Your task to perform on an android device: Is it going to rain tomorrow? Image 0: 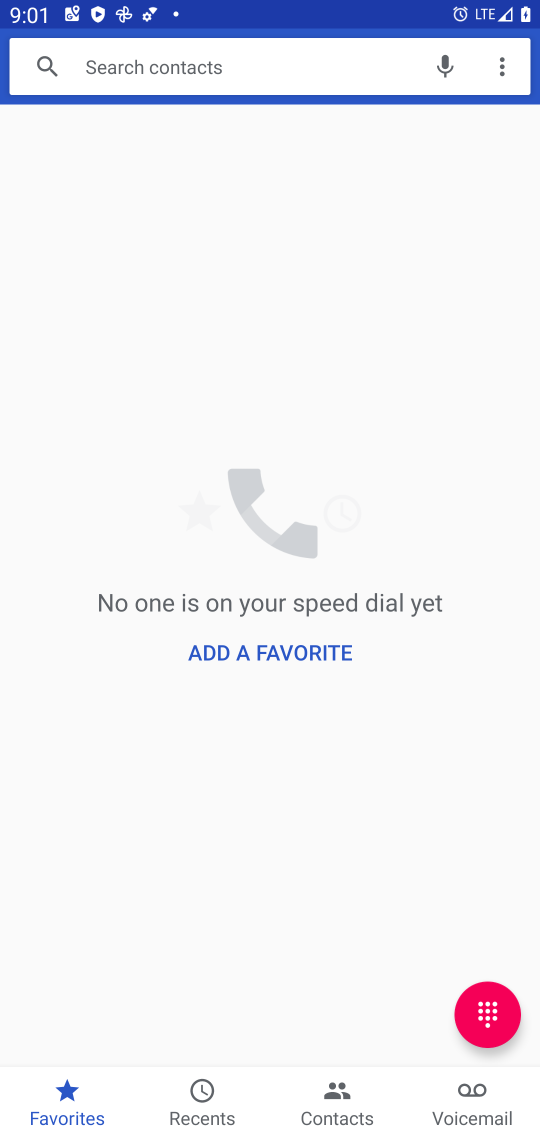
Step 0: press home button
Your task to perform on an android device: Is it going to rain tomorrow? Image 1: 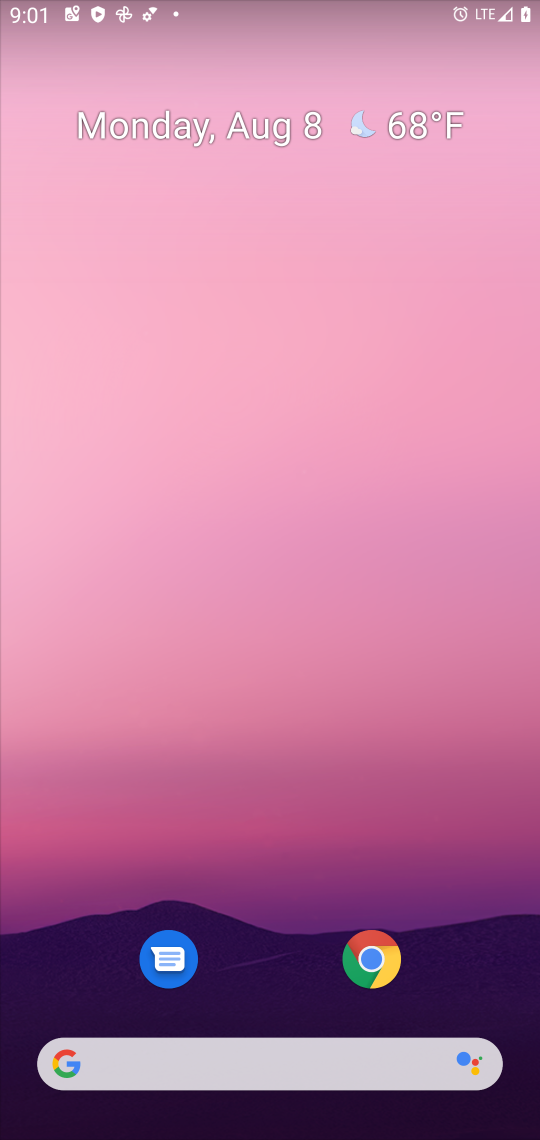
Step 1: drag from (501, 1007) to (297, 27)
Your task to perform on an android device: Is it going to rain tomorrow? Image 2: 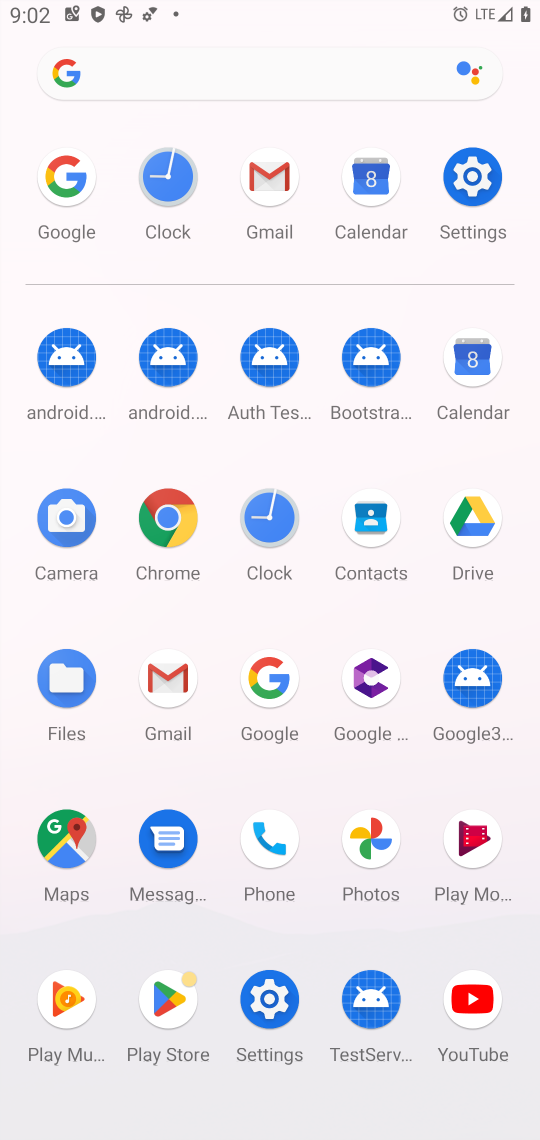
Step 2: click (275, 673)
Your task to perform on an android device: Is it going to rain tomorrow? Image 3: 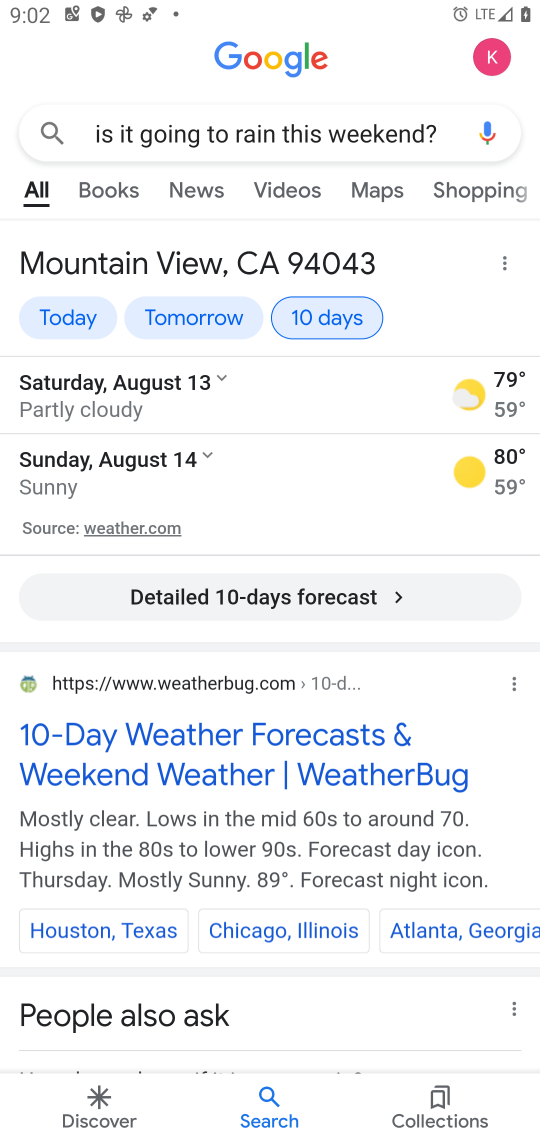
Step 3: press back button
Your task to perform on an android device: Is it going to rain tomorrow? Image 4: 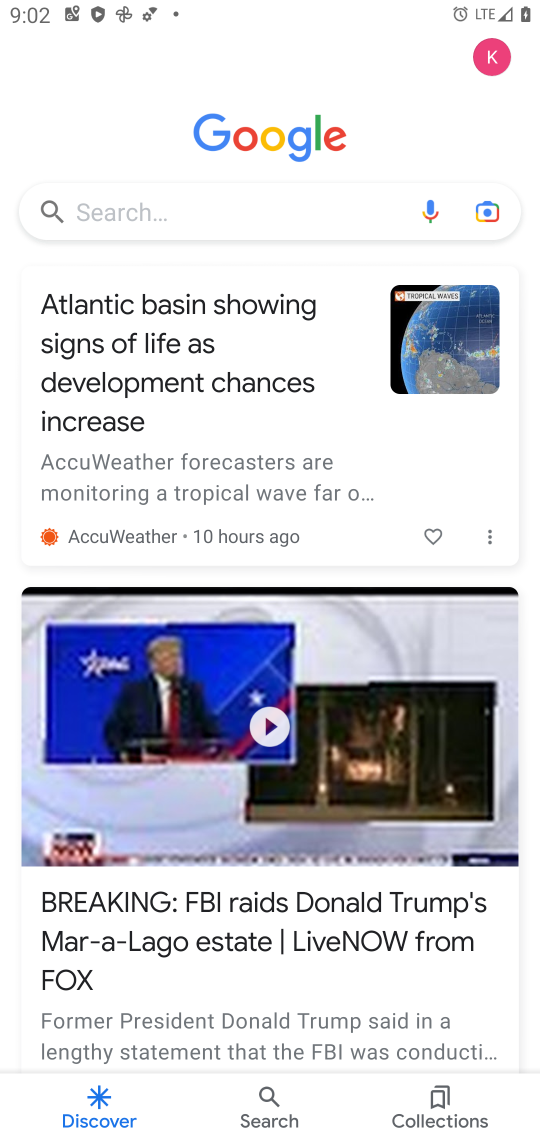
Step 4: click (122, 222)
Your task to perform on an android device: Is it going to rain tomorrow? Image 5: 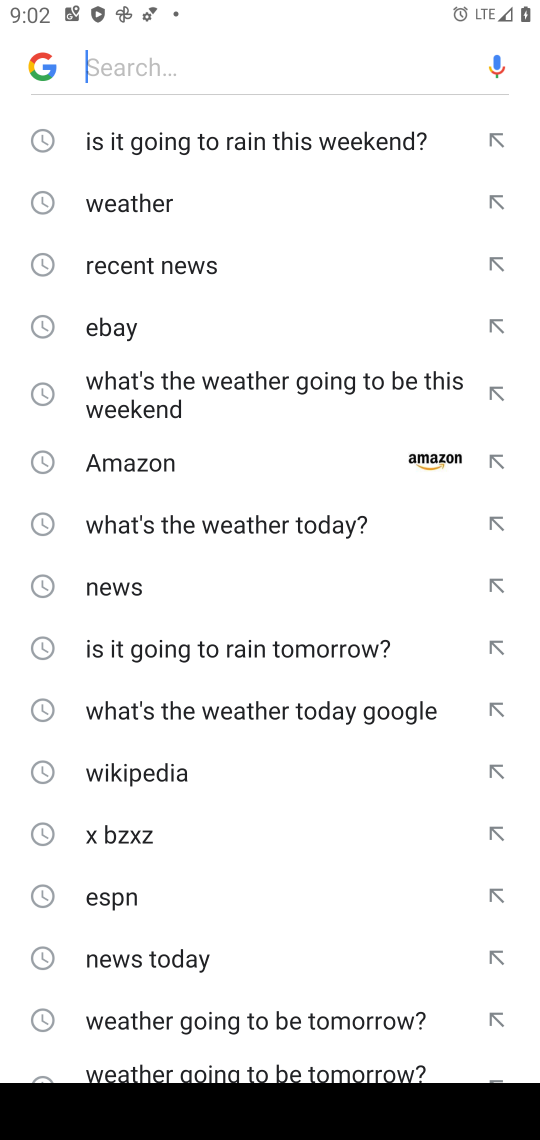
Step 5: drag from (333, 1068) to (349, 767)
Your task to perform on an android device: Is it going to rain tomorrow? Image 6: 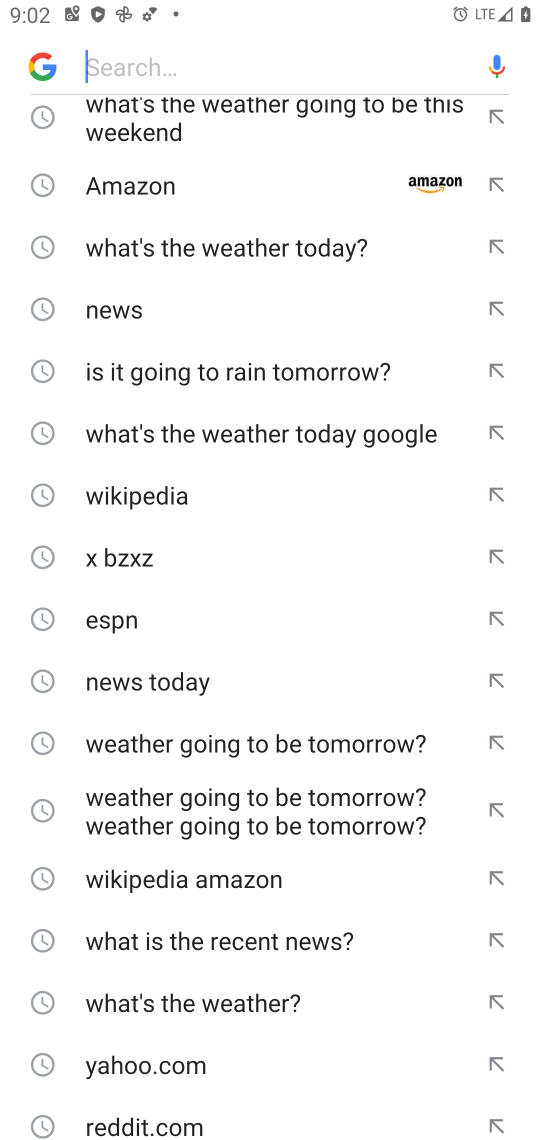
Step 6: type "Is it going to rain tomorrow?"
Your task to perform on an android device: Is it going to rain tomorrow? Image 7: 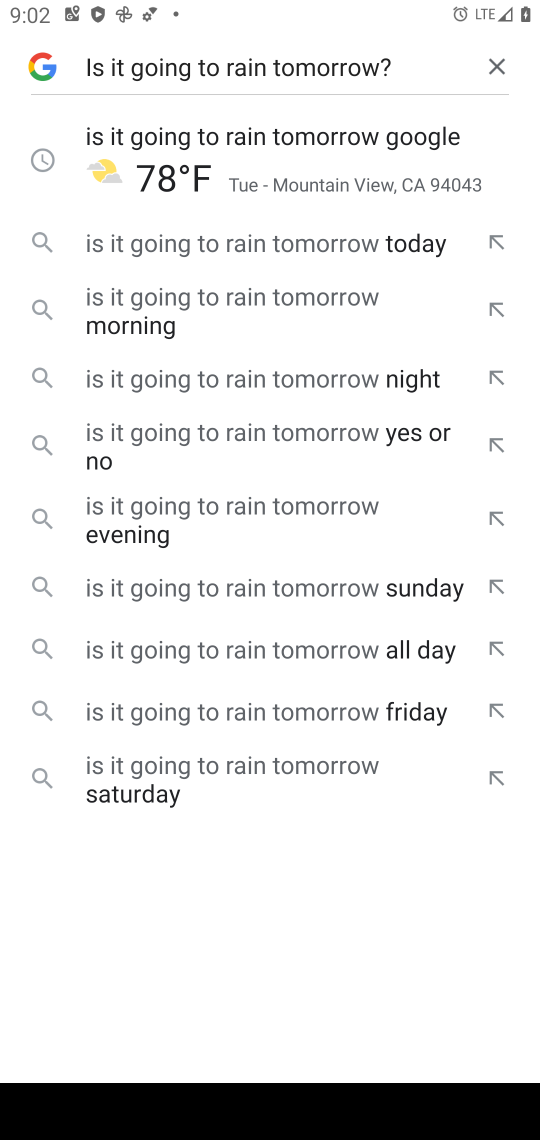
Step 7: click (262, 156)
Your task to perform on an android device: Is it going to rain tomorrow? Image 8: 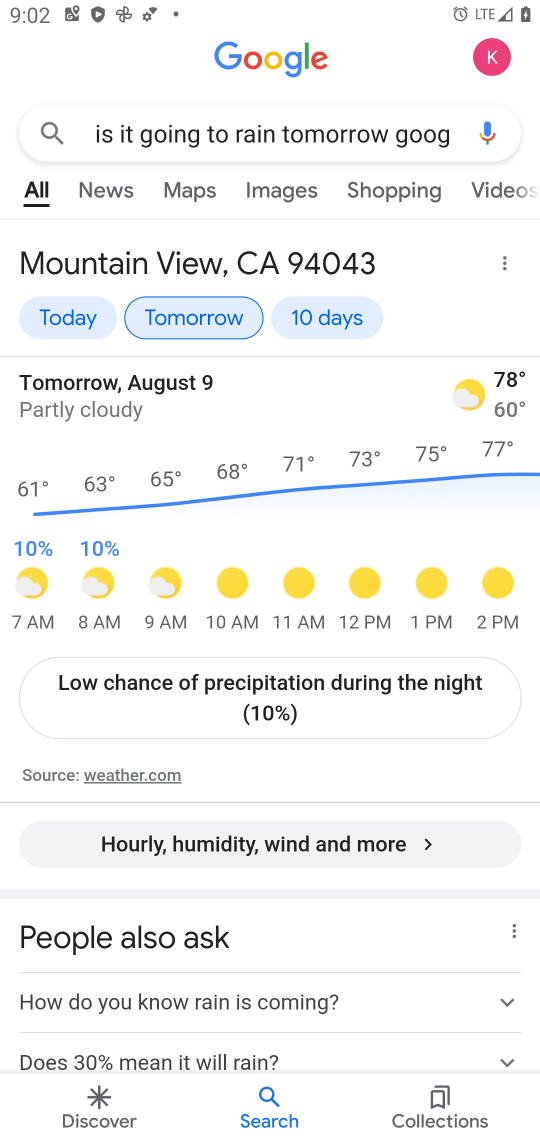
Step 8: task complete